Your task to perform on an android device: Search for vegetarian restaurants on Maps Image 0: 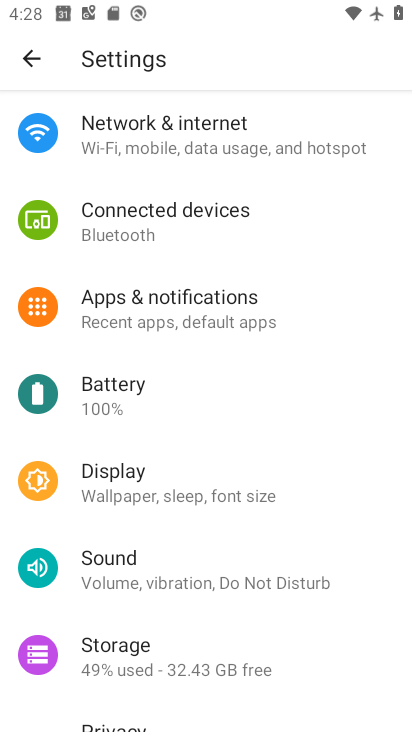
Step 0: press home button
Your task to perform on an android device: Search for vegetarian restaurants on Maps Image 1: 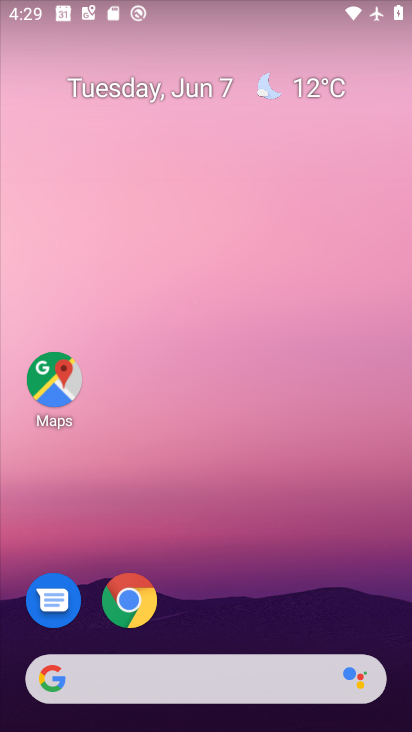
Step 1: click (57, 388)
Your task to perform on an android device: Search for vegetarian restaurants on Maps Image 2: 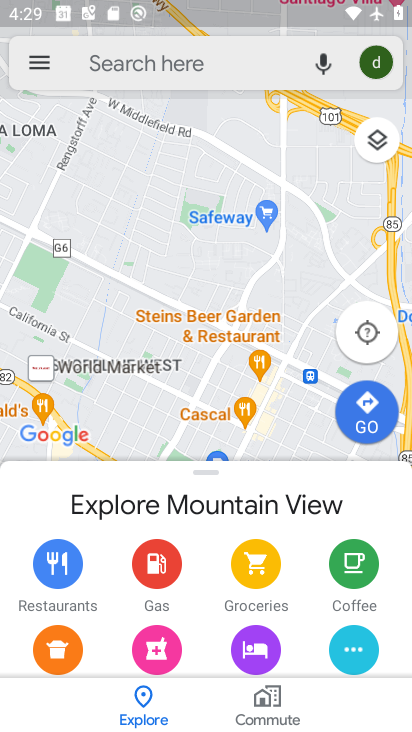
Step 2: click (183, 57)
Your task to perform on an android device: Search for vegetarian restaurants on Maps Image 3: 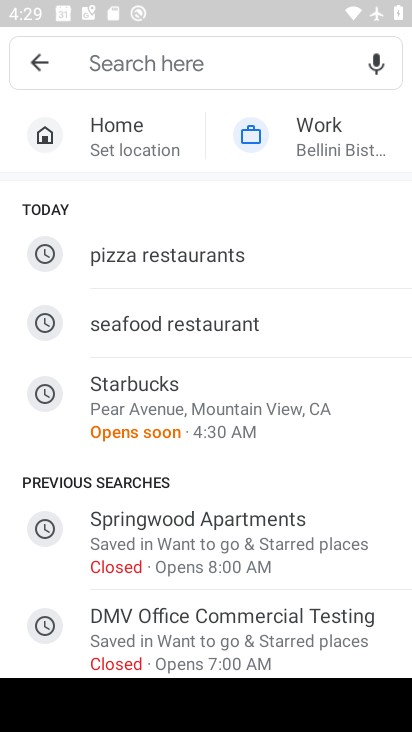
Step 3: type "vegetarian restaurants"
Your task to perform on an android device: Search for vegetarian restaurants on Maps Image 4: 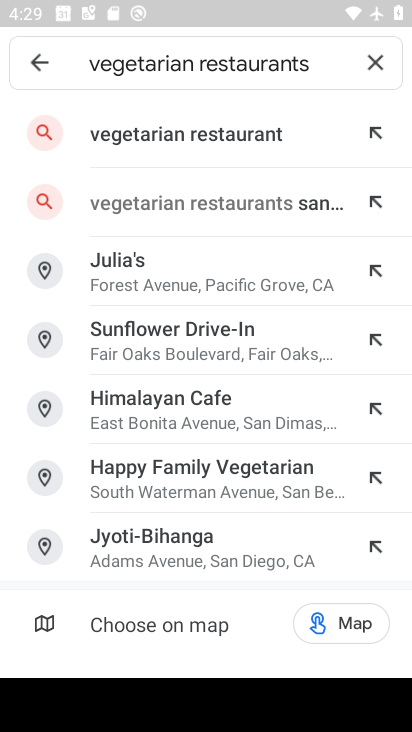
Step 4: press enter
Your task to perform on an android device: Search for vegetarian restaurants on Maps Image 5: 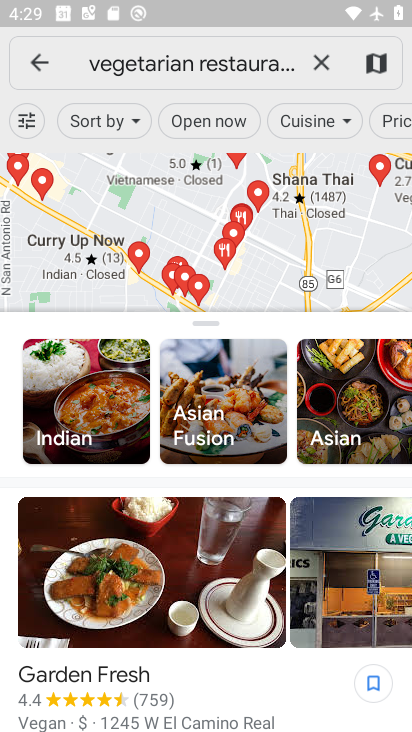
Step 5: task complete